Your task to perform on an android device: Go to Wikipedia Image 0: 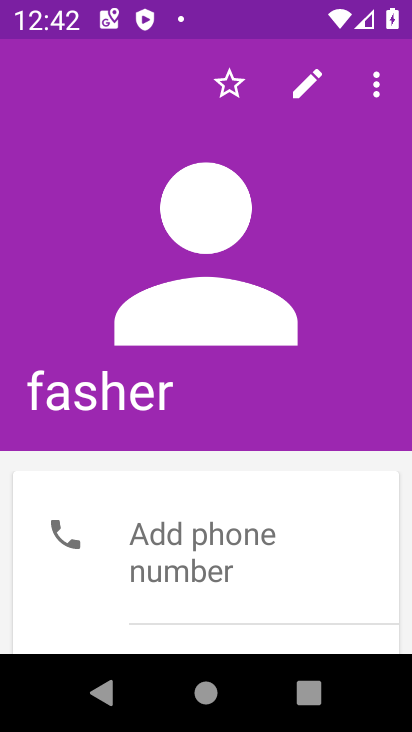
Step 0: press home button
Your task to perform on an android device: Go to Wikipedia Image 1: 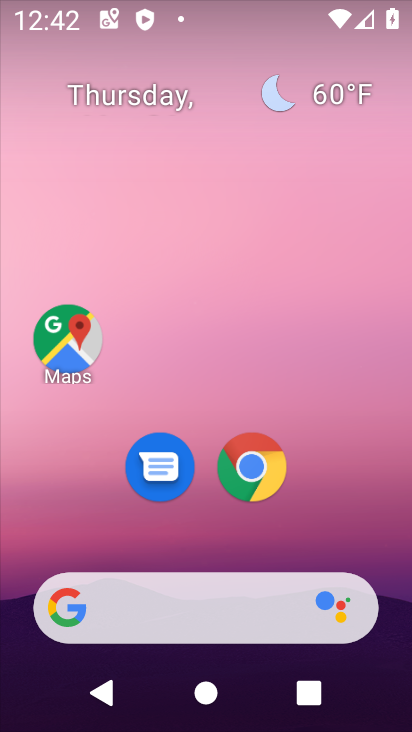
Step 1: click (270, 460)
Your task to perform on an android device: Go to Wikipedia Image 2: 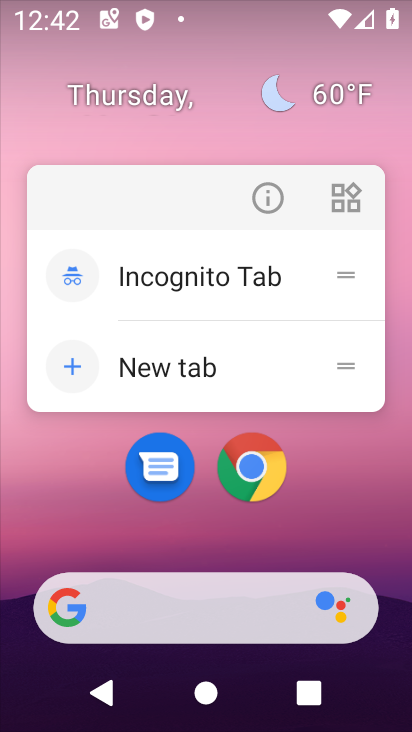
Step 2: click (270, 460)
Your task to perform on an android device: Go to Wikipedia Image 3: 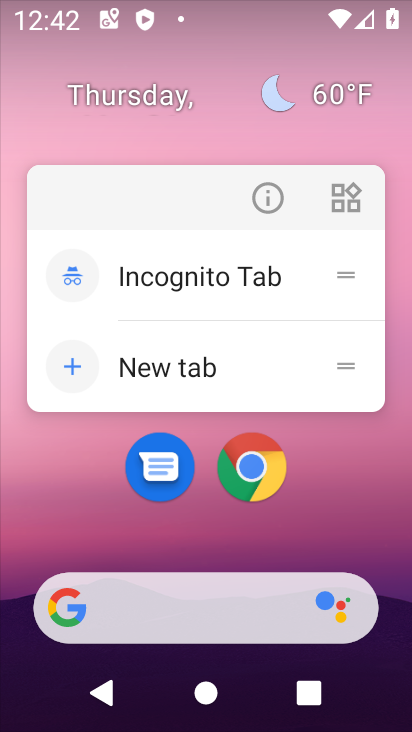
Step 3: click (270, 461)
Your task to perform on an android device: Go to Wikipedia Image 4: 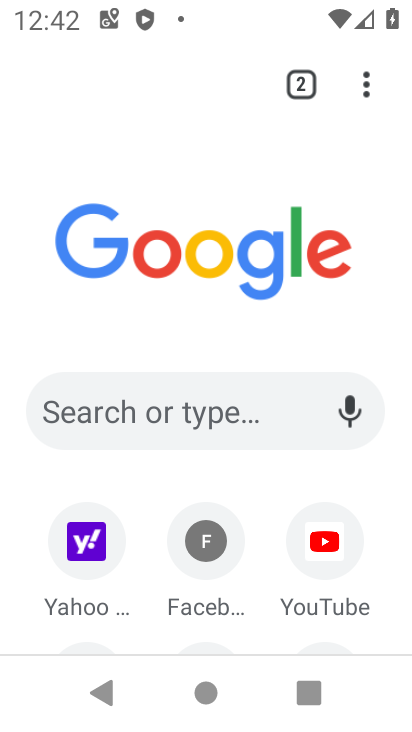
Step 4: click (162, 421)
Your task to perform on an android device: Go to Wikipedia Image 5: 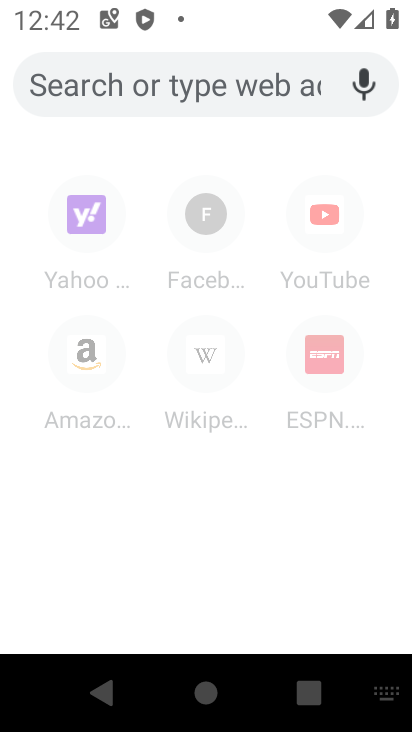
Step 5: type "wikipedia"
Your task to perform on an android device: Go to Wikipedia Image 6: 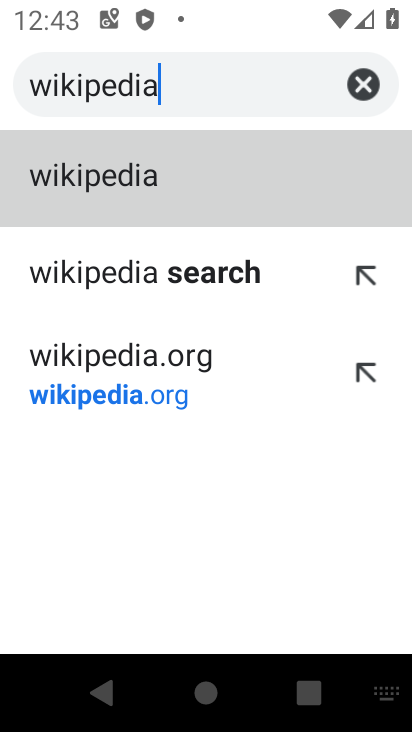
Step 6: click (156, 183)
Your task to perform on an android device: Go to Wikipedia Image 7: 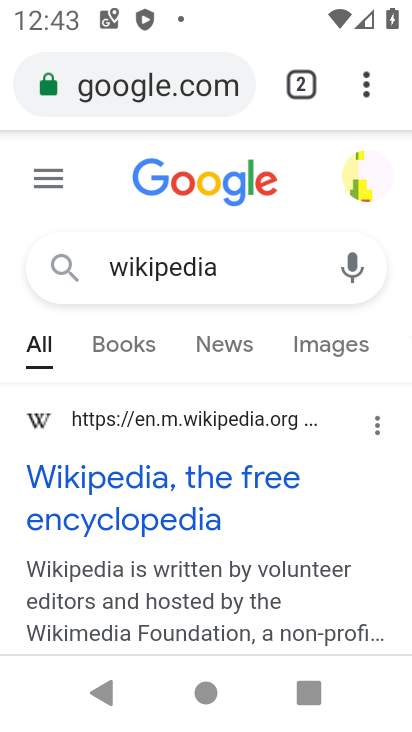
Step 7: task complete